Your task to perform on an android device: turn pop-ups off in chrome Image 0: 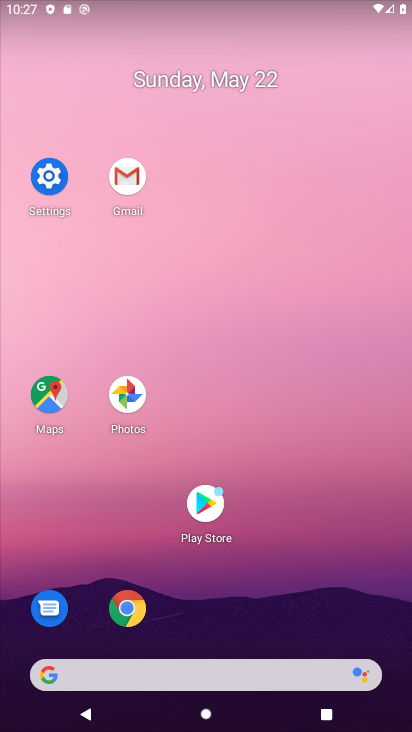
Step 0: click (126, 605)
Your task to perform on an android device: turn pop-ups off in chrome Image 1: 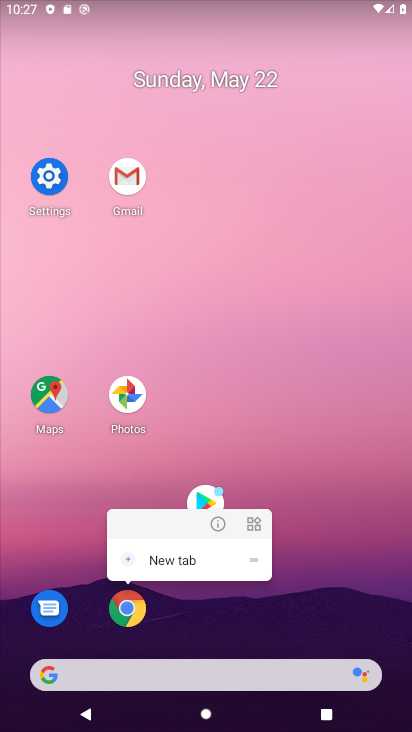
Step 1: click (134, 599)
Your task to perform on an android device: turn pop-ups off in chrome Image 2: 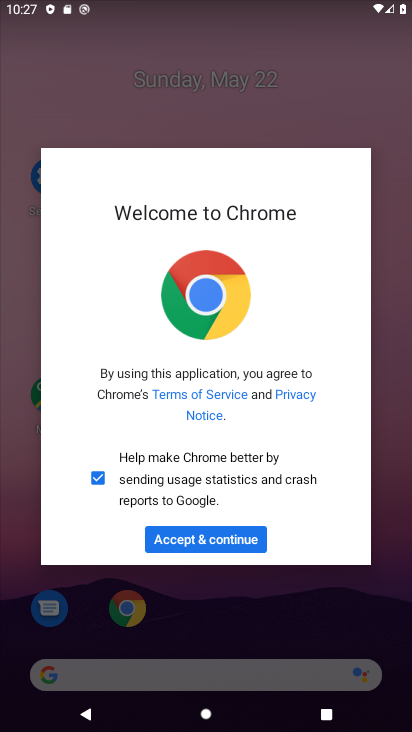
Step 2: click (202, 540)
Your task to perform on an android device: turn pop-ups off in chrome Image 3: 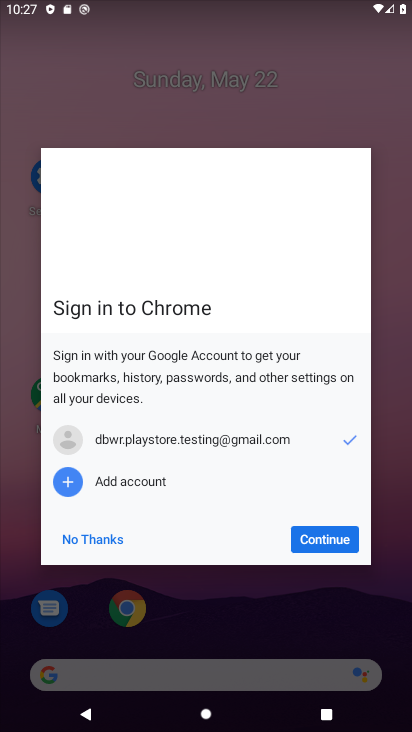
Step 3: click (327, 544)
Your task to perform on an android device: turn pop-ups off in chrome Image 4: 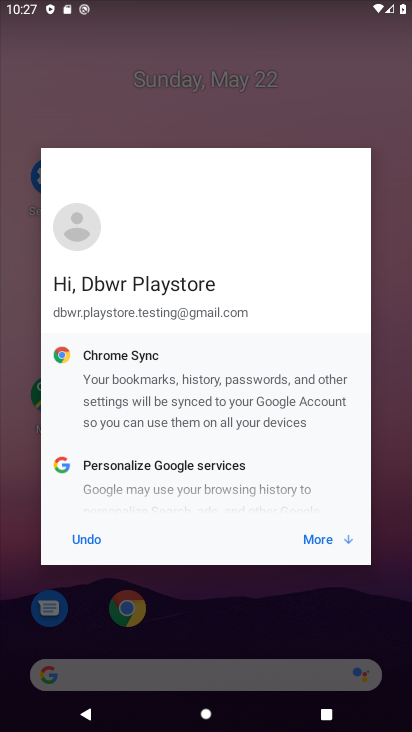
Step 4: click (329, 543)
Your task to perform on an android device: turn pop-ups off in chrome Image 5: 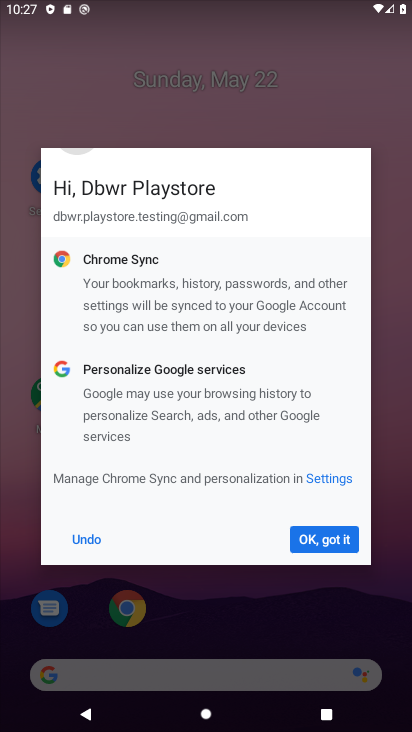
Step 5: click (329, 543)
Your task to perform on an android device: turn pop-ups off in chrome Image 6: 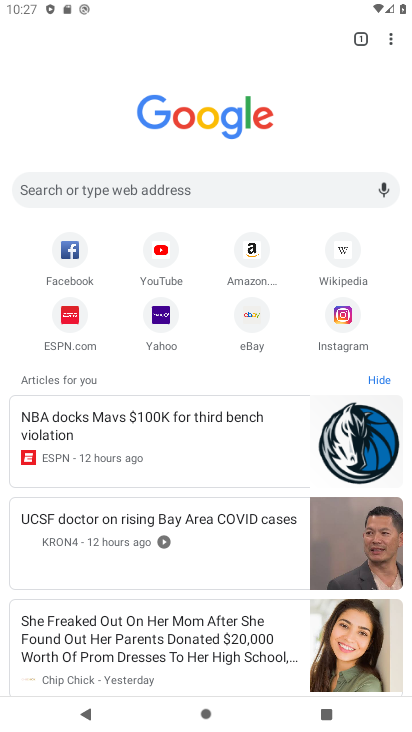
Step 6: click (397, 38)
Your task to perform on an android device: turn pop-ups off in chrome Image 7: 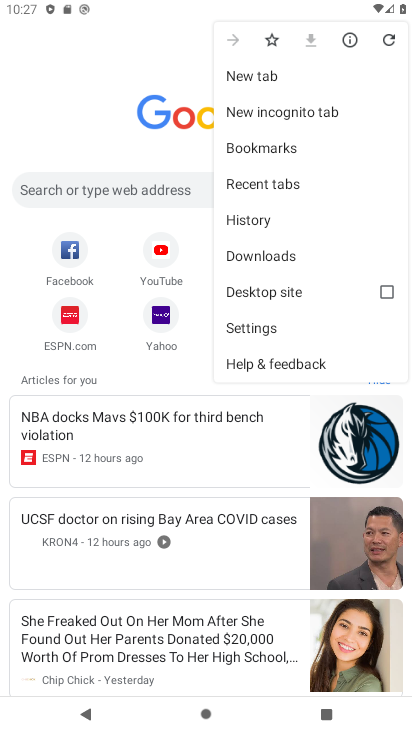
Step 7: click (281, 321)
Your task to perform on an android device: turn pop-ups off in chrome Image 8: 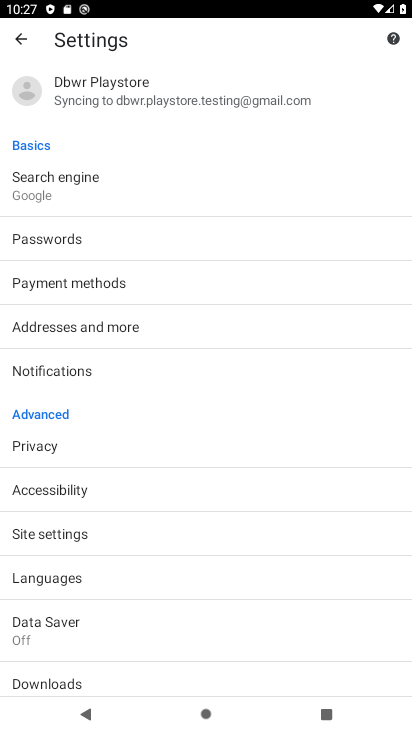
Step 8: drag from (179, 579) to (230, 223)
Your task to perform on an android device: turn pop-ups off in chrome Image 9: 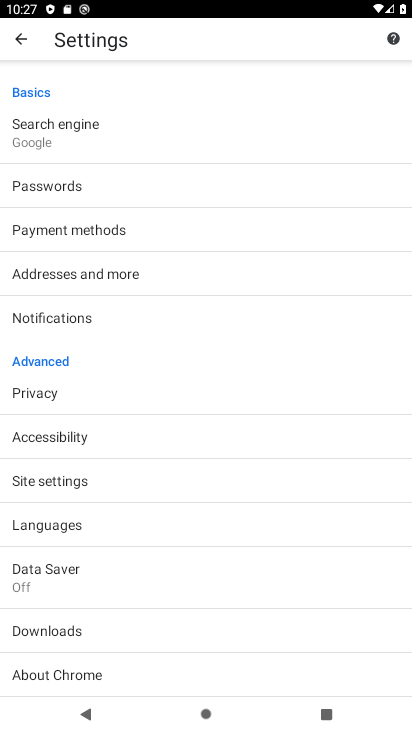
Step 9: click (123, 484)
Your task to perform on an android device: turn pop-ups off in chrome Image 10: 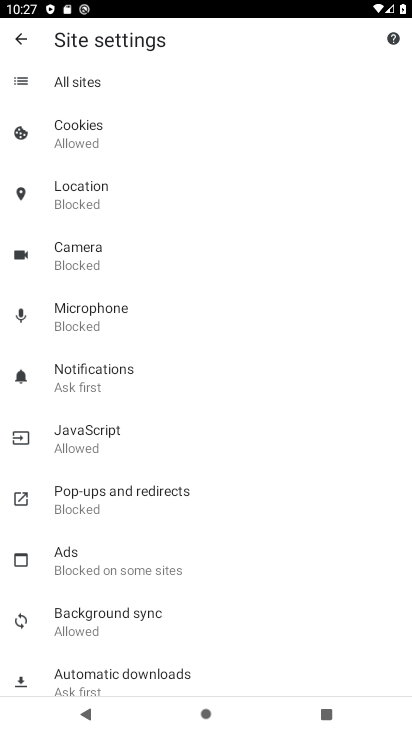
Step 10: drag from (191, 603) to (232, 222)
Your task to perform on an android device: turn pop-ups off in chrome Image 11: 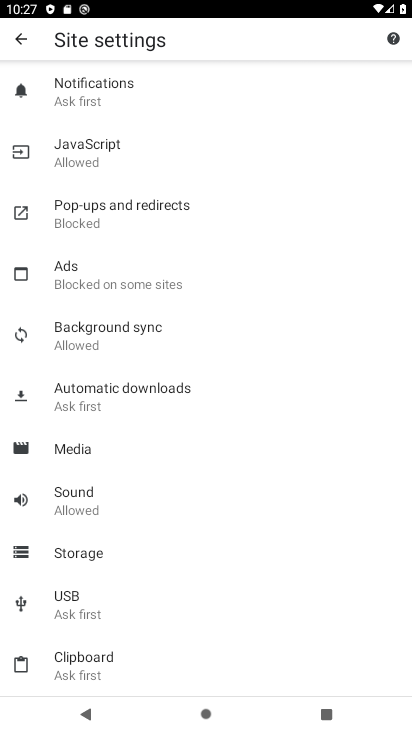
Step 11: click (164, 211)
Your task to perform on an android device: turn pop-ups off in chrome Image 12: 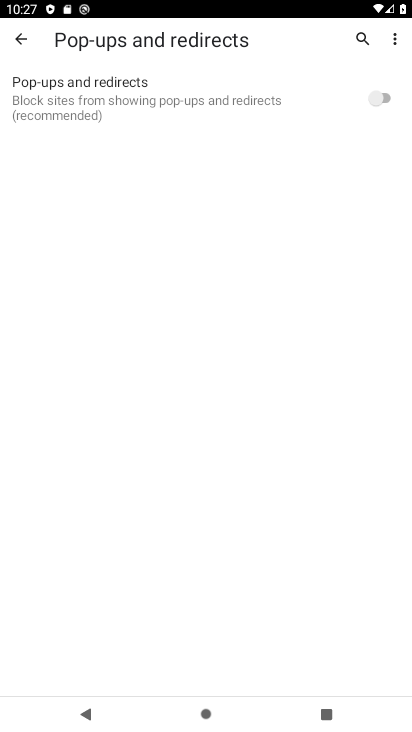
Step 12: task complete